Your task to perform on an android device: Open network settings Image 0: 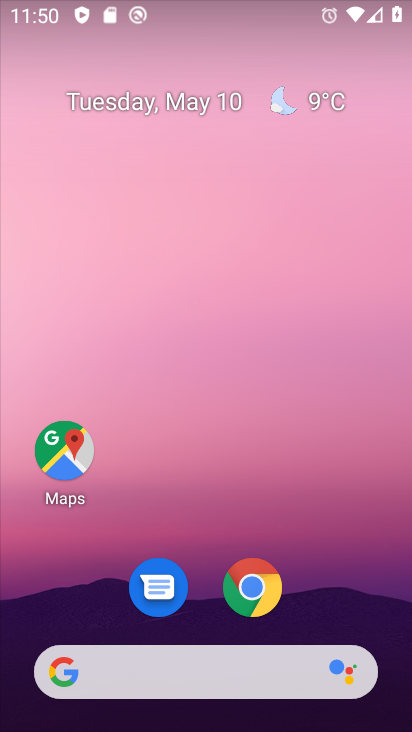
Step 0: drag from (373, 118) to (365, 17)
Your task to perform on an android device: Open network settings Image 1: 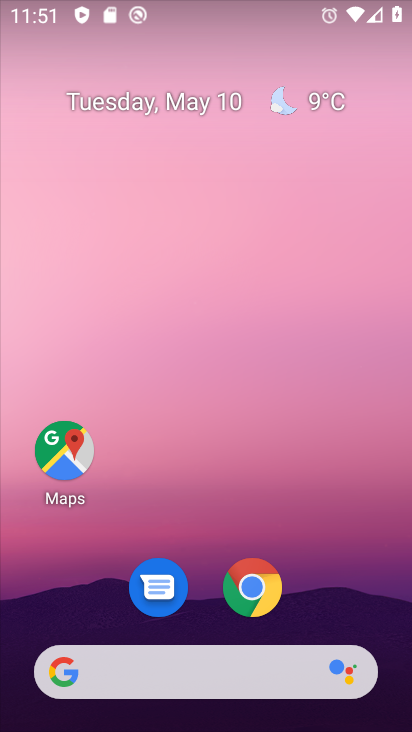
Step 1: drag from (310, 614) to (328, 5)
Your task to perform on an android device: Open network settings Image 2: 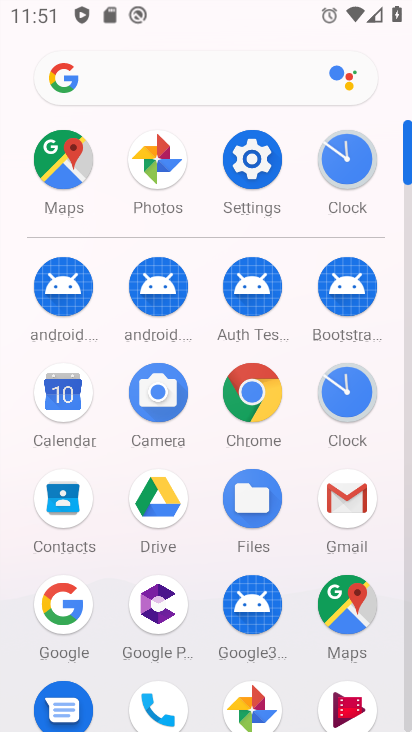
Step 2: click (249, 171)
Your task to perform on an android device: Open network settings Image 3: 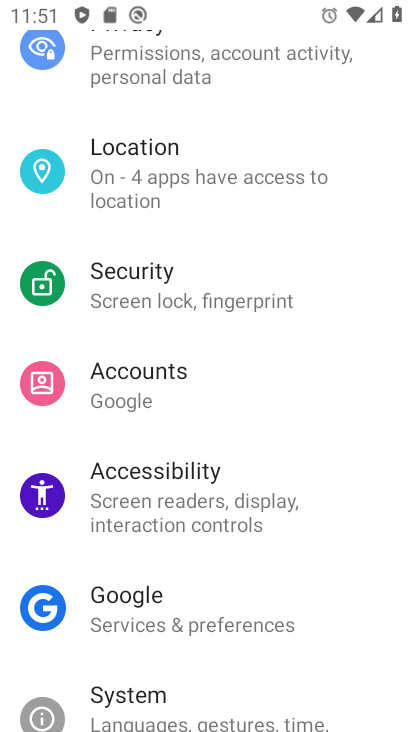
Step 3: drag from (304, 138) to (315, 445)
Your task to perform on an android device: Open network settings Image 4: 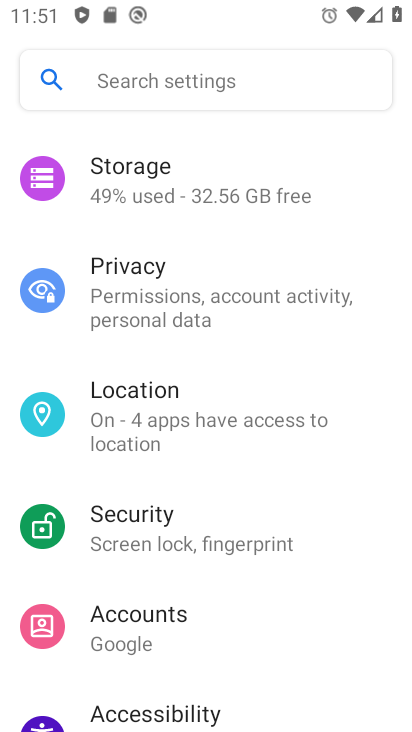
Step 4: drag from (292, 119) to (337, 417)
Your task to perform on an android device: Open network settings Image 5: 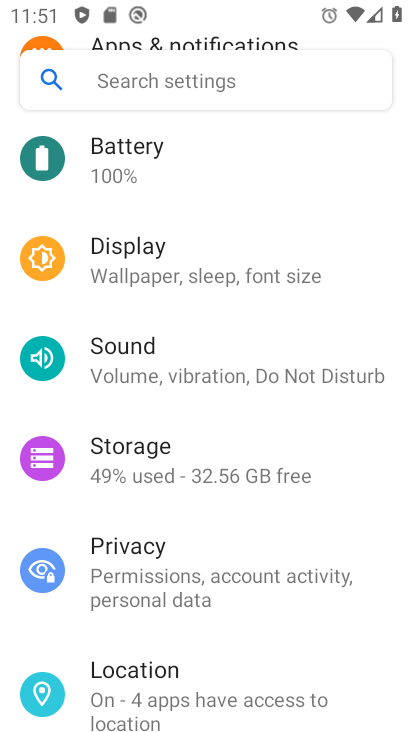
Step 5: drag from (269, 182) to (306, 513)
Your task to perform on an android device: Open network settings Image 6: 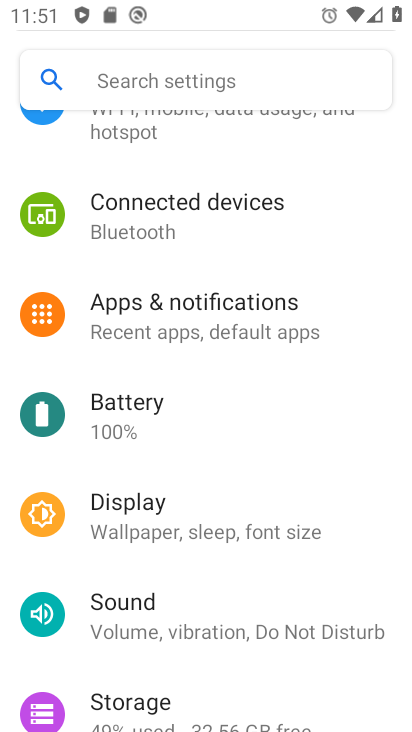
Step 6: drag from (297, 257) to (318, 568)
Your task to perform on an android device: Open network settings Image 7: 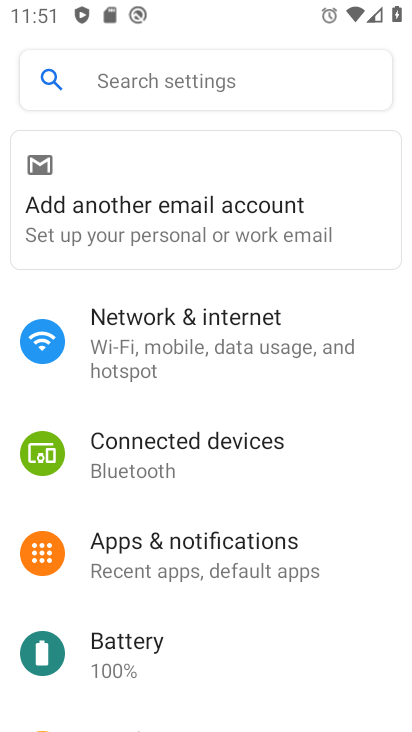
Step 7: click (134, 320)
Your task to perform on an android device: Open network settings Image 8: 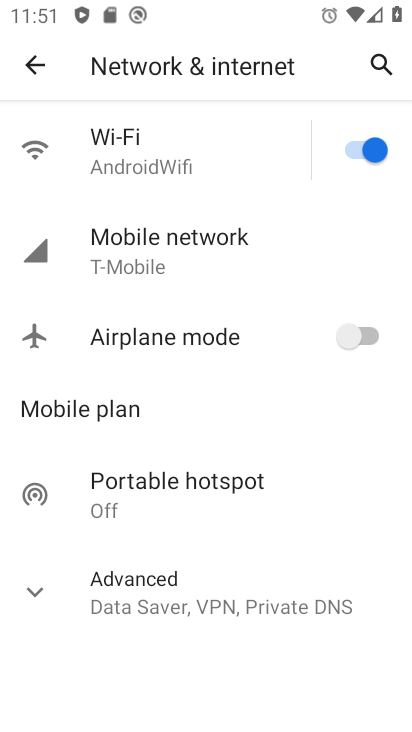
Step 8: click (132, 253)
Your task to perform on an android device: Open network settings Image 9: 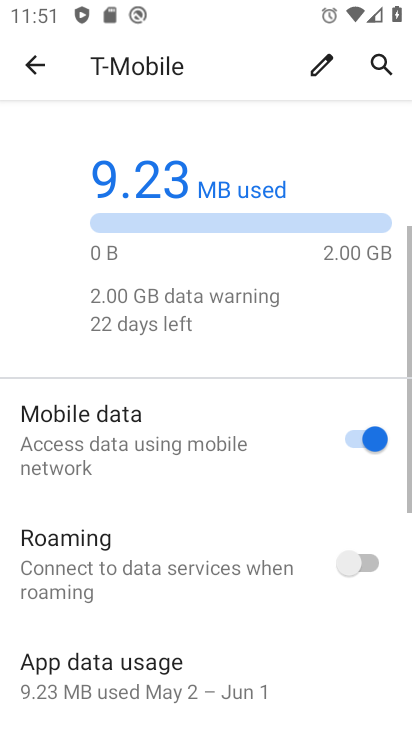
Step 9: drag from (207, 562) to (191, 227)
Your task to perform on an android device: Open network settings Image 10: 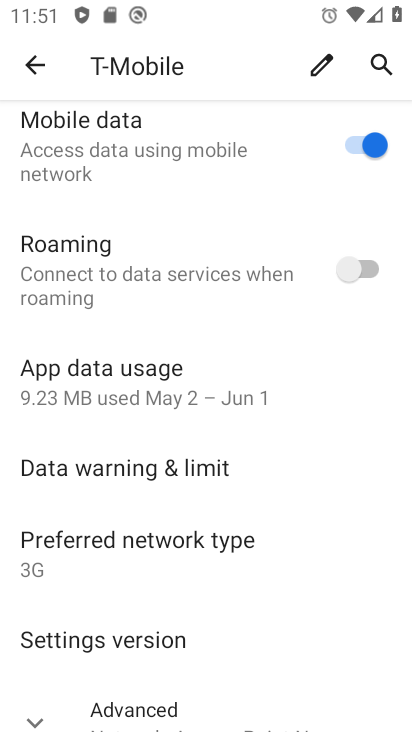
Step 10: drag from (193, 622) to (174, 264)
Your task to perform on an android device: Open network settings Image 11: 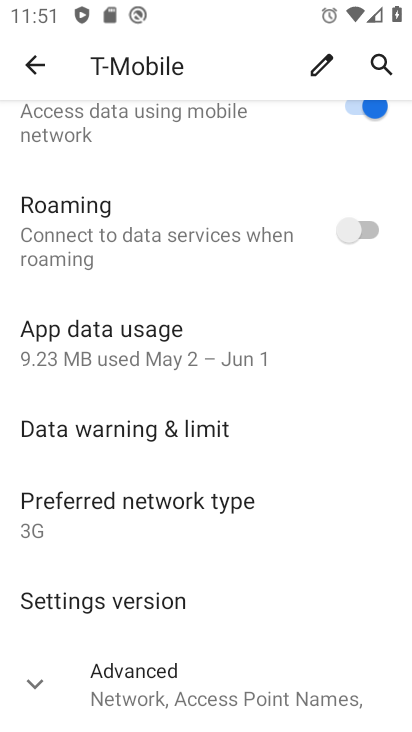
Step 11: drag from (117, 212) to (147, 495)
Your task to perform on an android device: Open network settings Image 12: 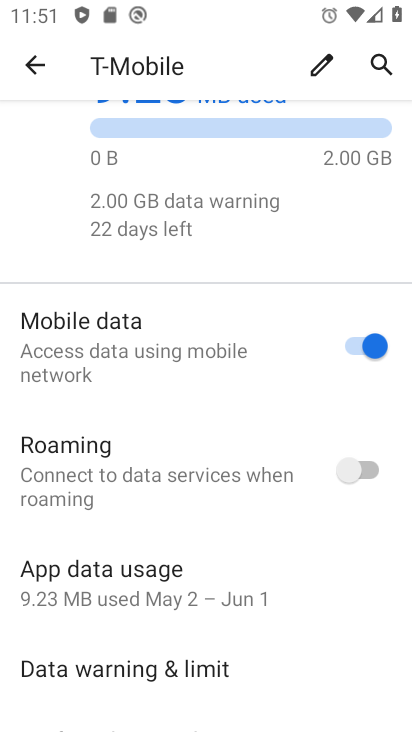
Step 12: drag from (141, 449) to (125, 158)
Your task to perform on an android device: Open network settings Image 13: 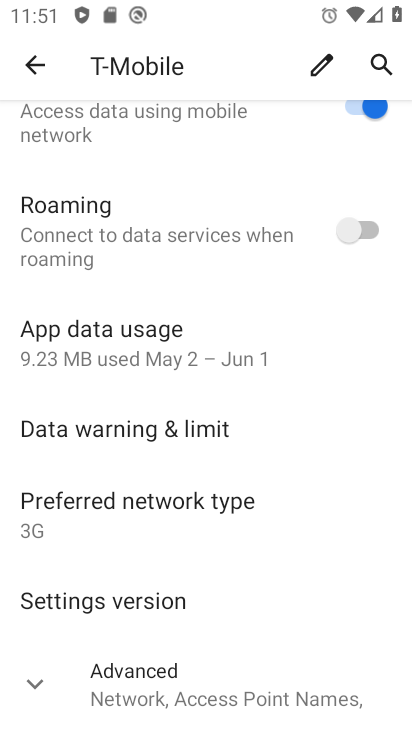
Step 13: click (47, 679)
Your task to perform on an android device: Open network settings Image 14: 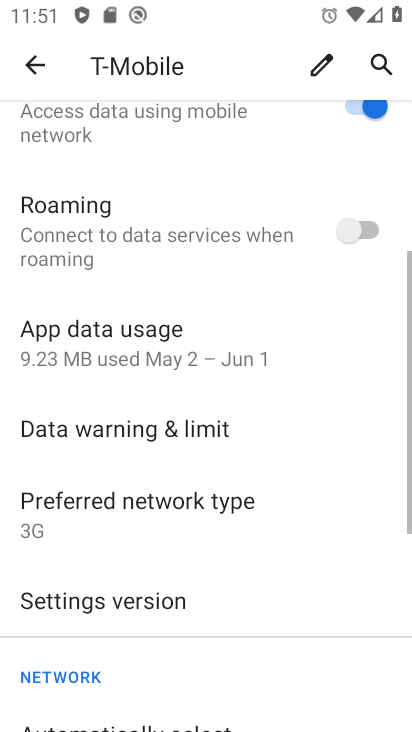
Step 14: task complete